Your task to perform on an android device: turn on wifi Image 0: 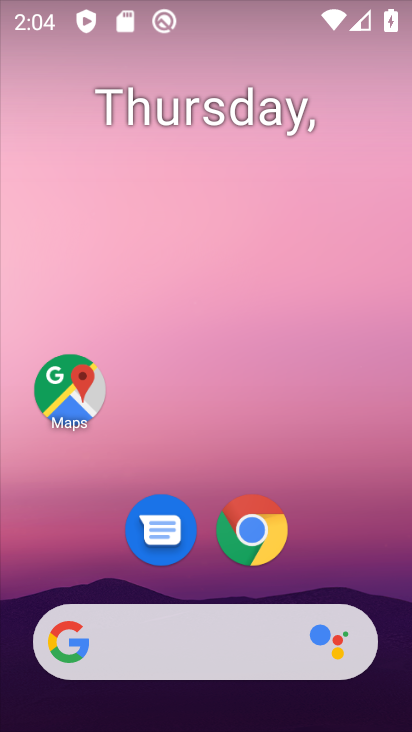
Step 0: drag from (255, 714) to (251, 0)
Your task to perform on an android device: turn on wifi Image 1: 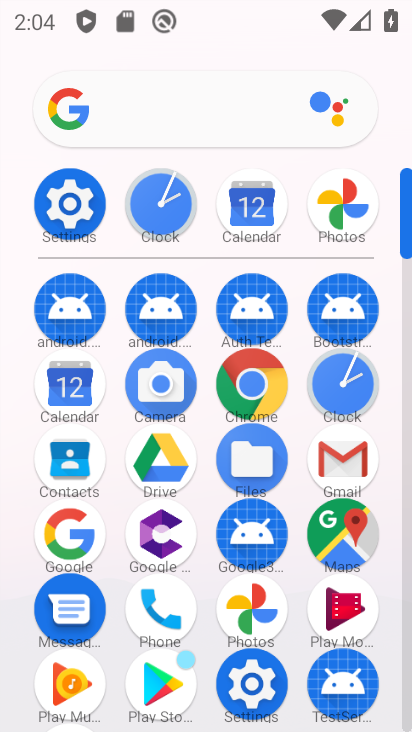
Step 1: click (73, 201)
Your task to perform on an android device: turn on wifi Image 2: 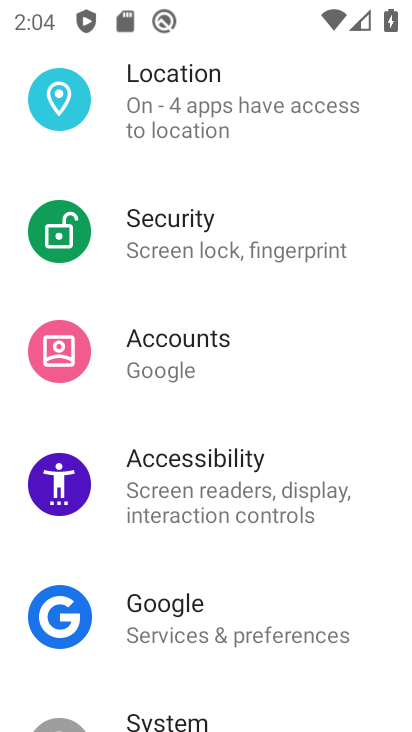
Step 2: drag from (327, 139) to (224, 726)
Your task to perform on an android device: turn on wifi Image 3: 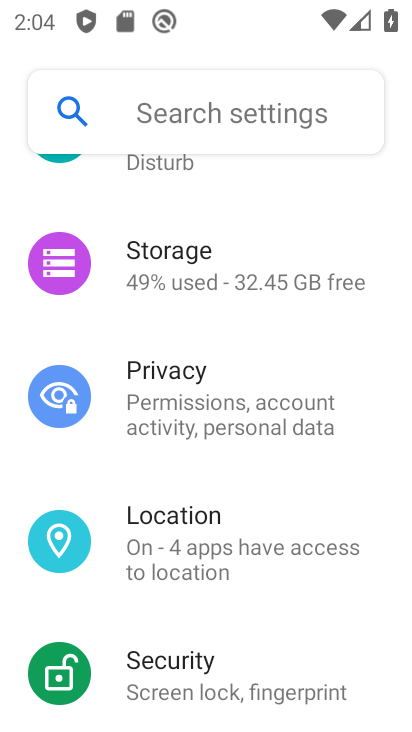
Step 3: click (278, 128)
Your task to perform on an android device: turn on wifi Image 4: 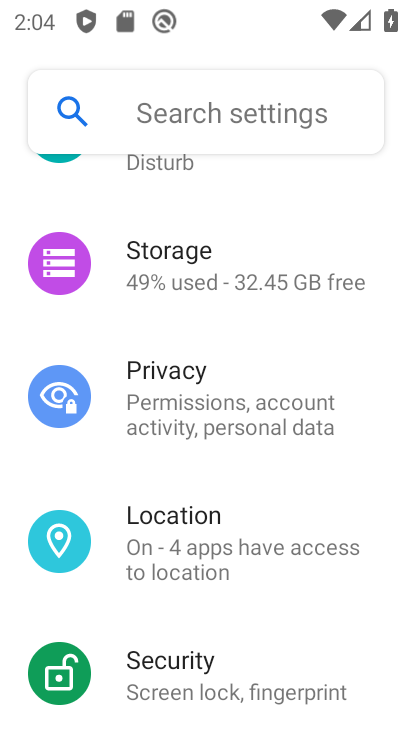
Step 4: drag from (266, 212) to (181, 702)
Your task to perform on an android device: turn on wifi Image 5: 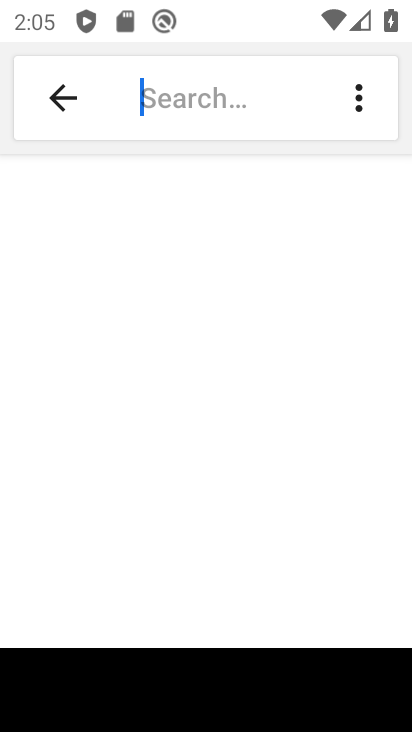
Step 5: drag from (290, 242) to (224, 699)
Your task to perform on an android device: turn on wifi Image 6: 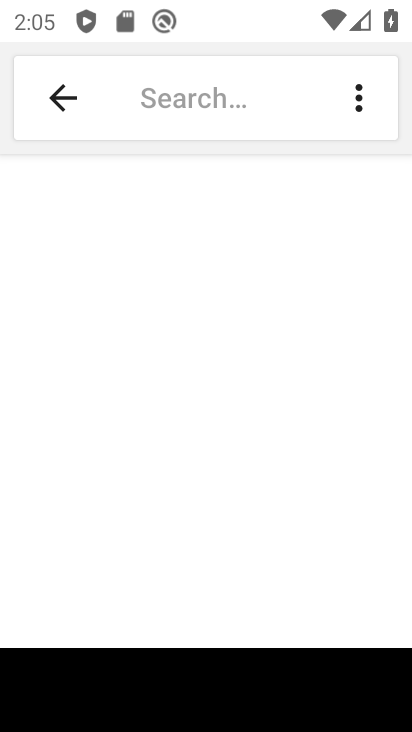
Step 6: click (55, 94)
Your task to perform on an android device: turn on wifi Image 7: 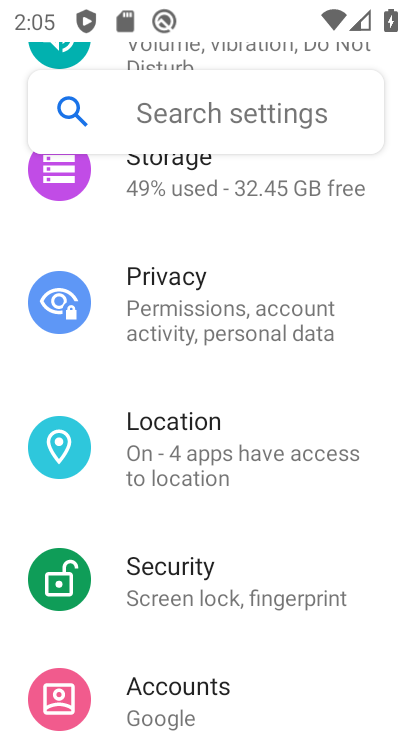
Step 7: drag from (213, 255) to (208, 730)
Your task to perform on an android device: turn on wifi Image 8: 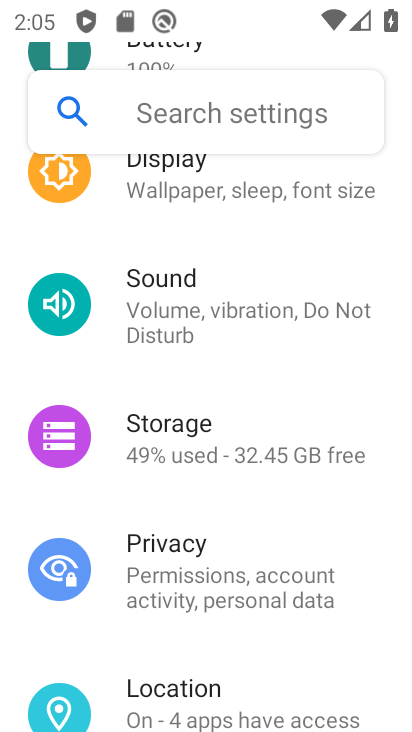
Step 8: drag from (291, 278) to (215, 708)
Your task to perform on an android device: turn on wifi Image 9: 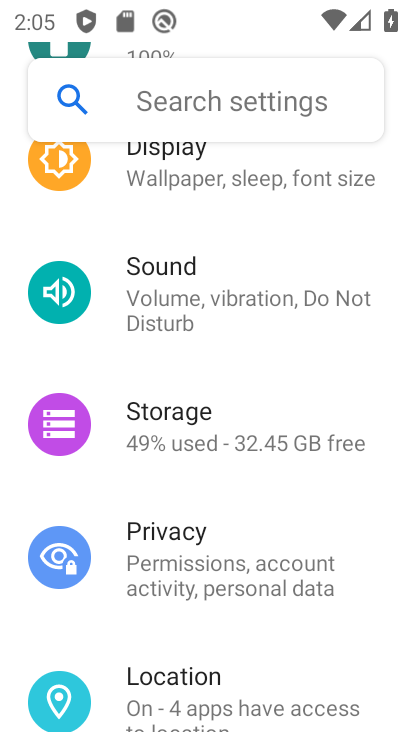
Step 9: drag from (296, 199) to (213, 726)
Your task to perform on an android device: turn on wifi Image 10: 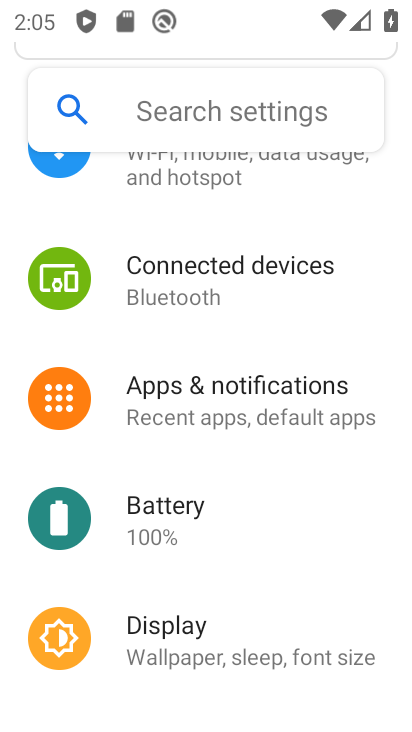
Step 10: drag from (292, 228) to (173, 708)
Your task to perform on an android device: turn on wifi Image 11: 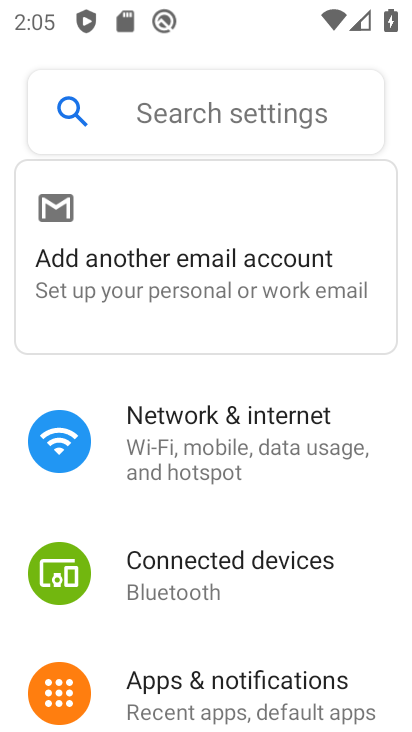
Step 11: click (190, 472)
Your task to perform on an android device: turn on wifi Image 12: 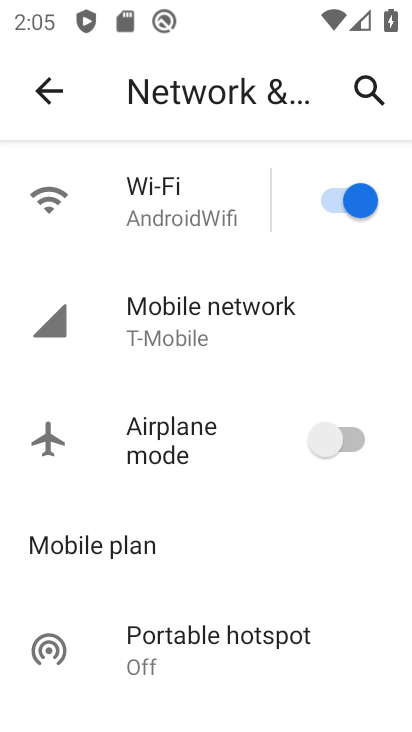
Step 12: task complete